Your task to perform on an android device: turn on sleep mode Image 0: 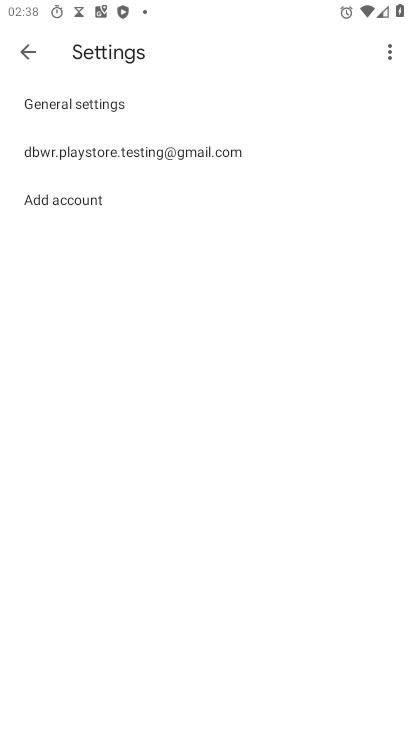
Step 0: press home button
Your task to perform on an android device: turn on sleep mode Image 1: 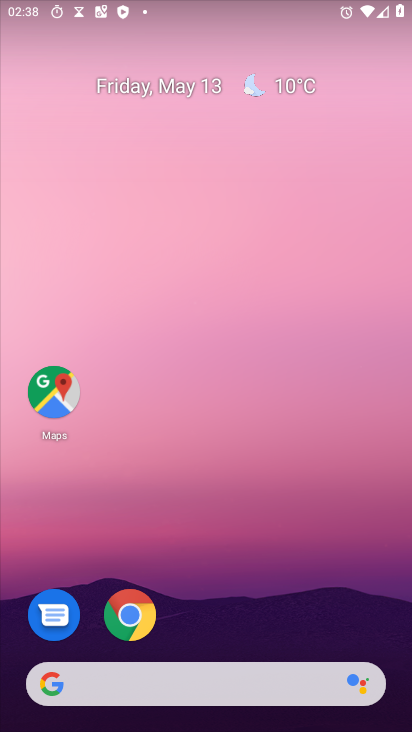
Step 1: drag from (203, 615) to (66, 103)
Your task to perform on an android device: turn on sleep mode Image 2: 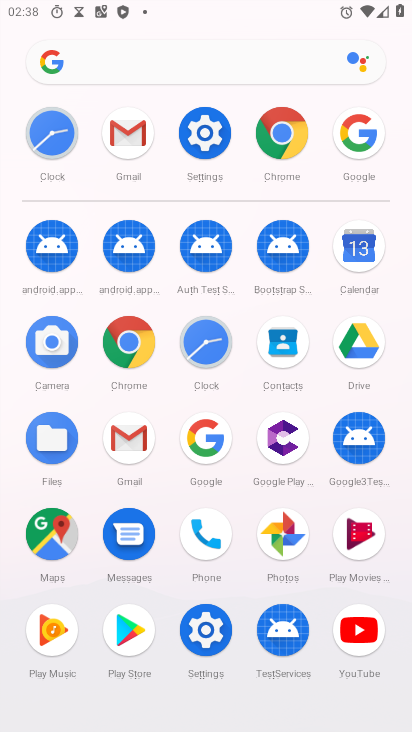
Step 2: click (216, 141)
Your task to perform on an android device: turn on sleep mode Image 3: 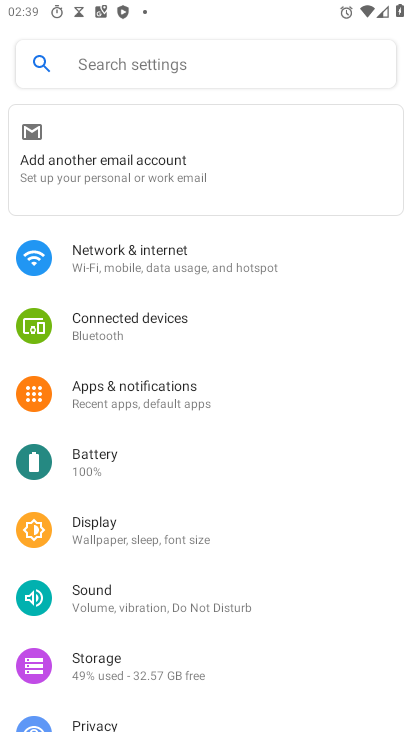
Step 3: click (124, 533)
Your task to perform on an android device: turn on sleep mode Image 4: 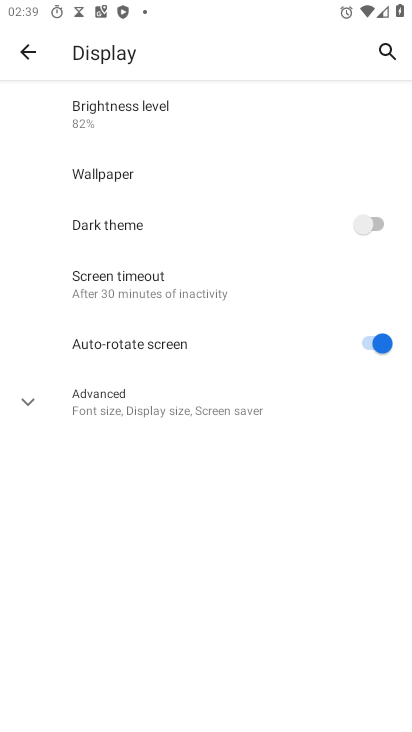
Step 4: click (101, 397)
Your task to perform on an android device: turn on sleep mode Image 5: 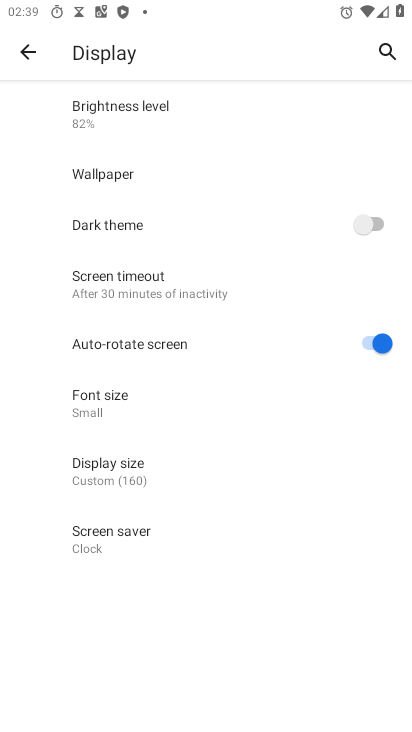
Step 5: task complete